Your task to perform on an android device: toggle sleep mode Image 0: 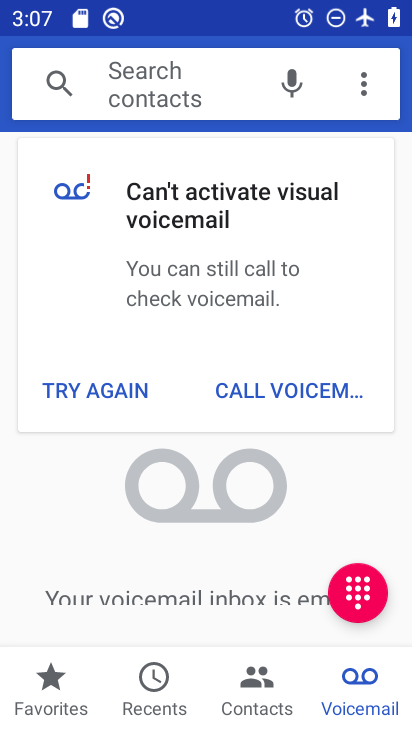
Step 0: press home button
Your task to perform on an android device: toggle sleep mode Image 1: 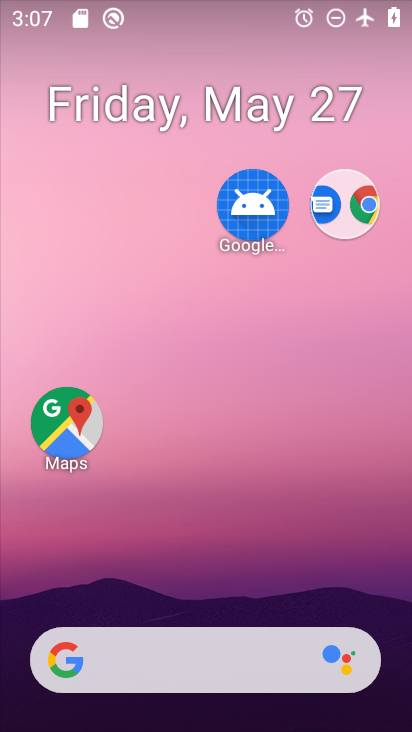
Step 1: drag from (310, 716) to (344, 276)
Your task to perform on an android device: toggle sleep mode Image 2: 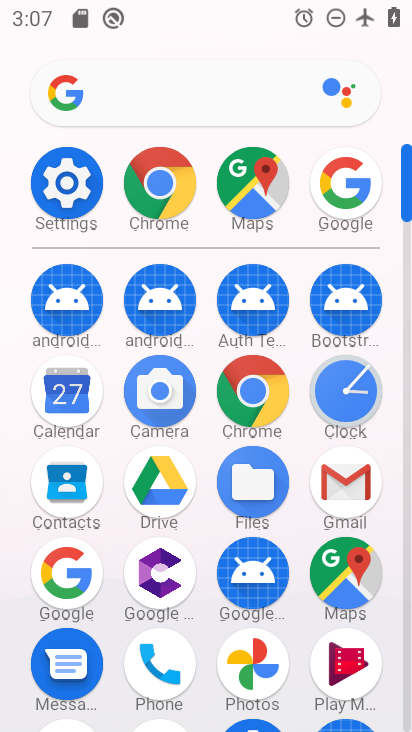
Step 2: click (94, 185)
Your task to perform on an android device: toggle sleep mode Image 3: 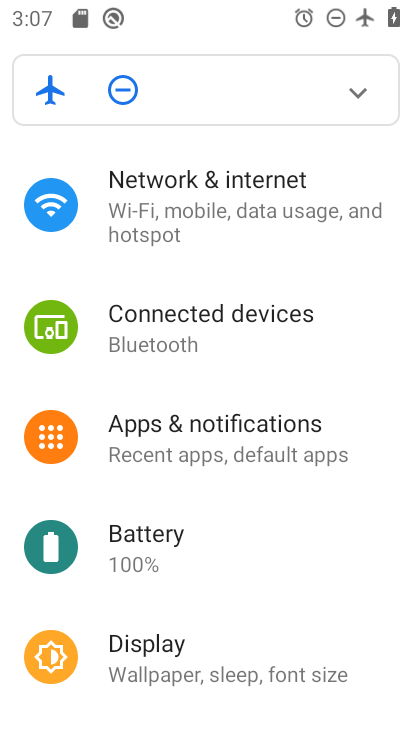
Step 3: drag from (238, 663) to (278, 385)
Your task to perform on an android device: toggle sleep mode Image 4: 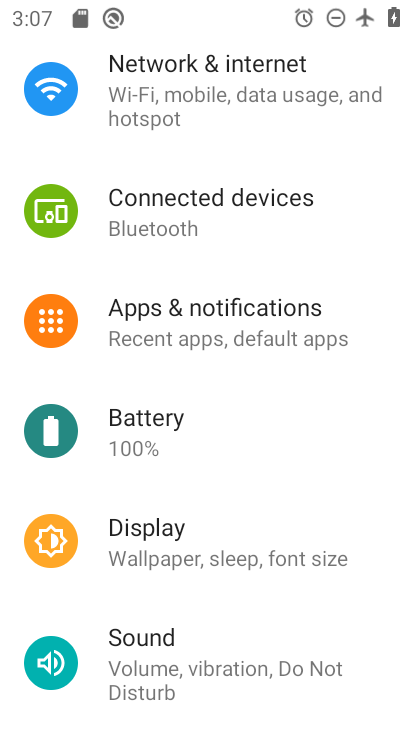
Step 4: click (196, 543)
Your task to perform on an android device: toggle sleep mode Image 5: 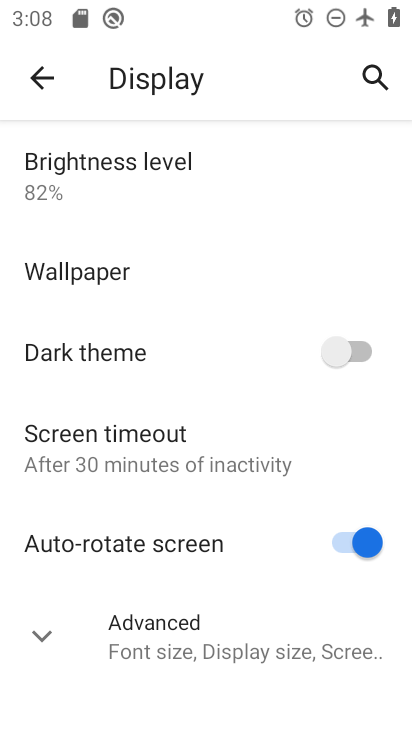
Step 5: click (133, 653)
Your task to perform on an android device: toggle sleep mode Image 6: 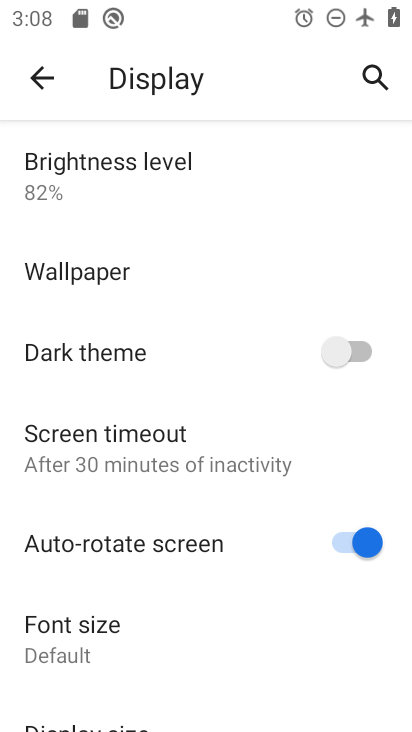
Step 6: task complete